Your task to perform on an android device: Go to internet settings Image 0: 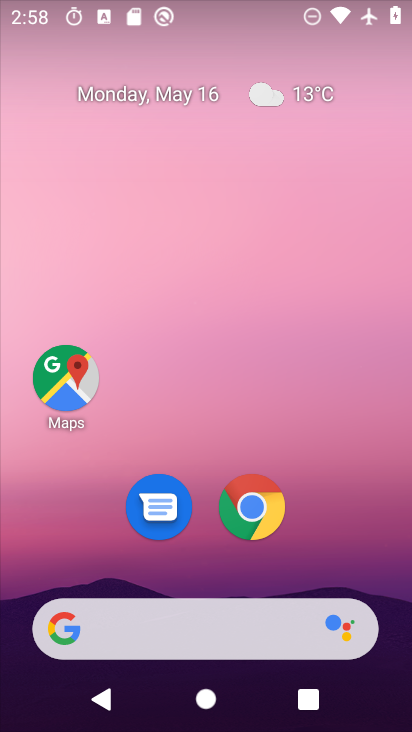
Step 0: drag from (213, 589) to (324, 112)
Your task to perform on an android device: Go to internet settings Image 1: 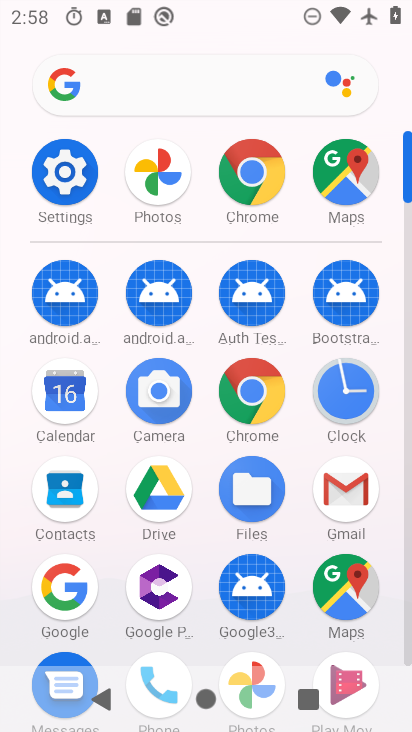
Step 1: click (80, 193)
Your task to perform on an android device: Go to internet settings Image 2: 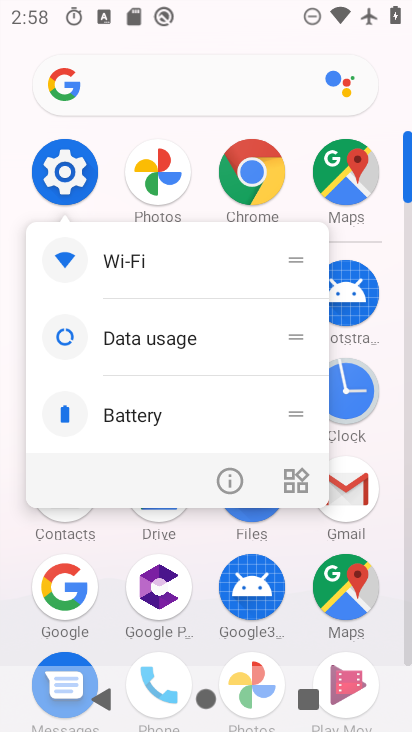
Step 2: click (58, 195)
Your task to perform on an android device: Go to internet settings Image 3: 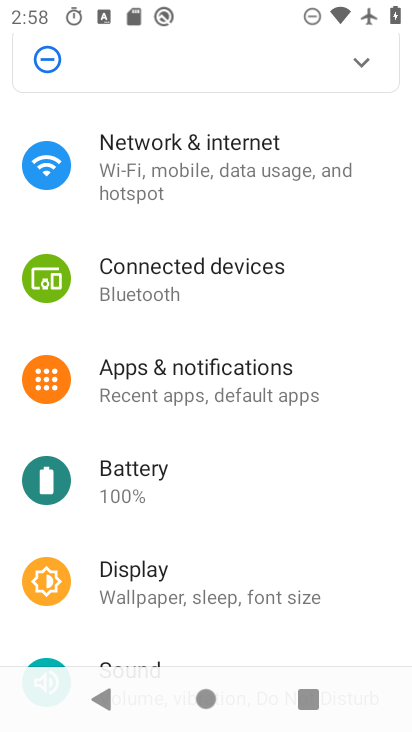
Step 3: drag from (112, 537) to (98, 621)
Your task to perform on an android device: Go to internet settings Image 4: 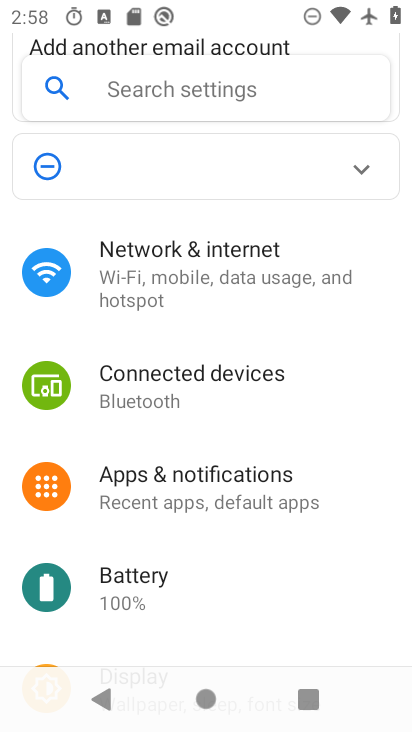
Step 4: click (169, 241)
Your task to perform on an android device: Go to internet settings Image 5: 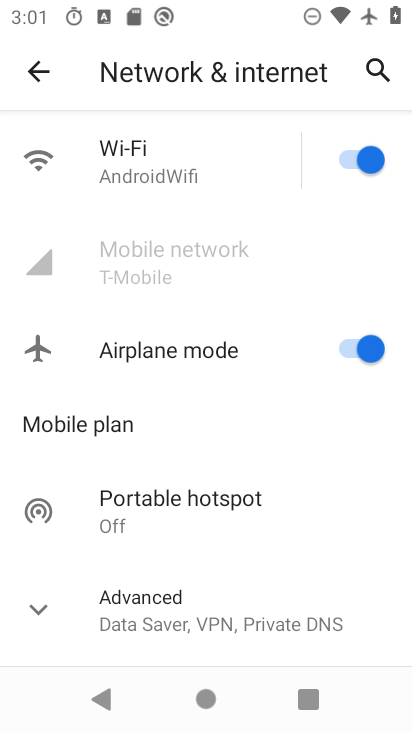
Step 5: task complete